Your task to perform on an android device: Do I have any events this weekend? Image 0: 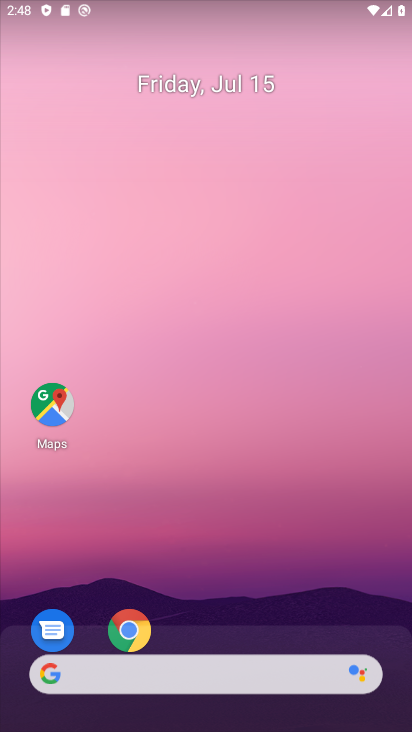
Step 0: drag from (222, 730) to (235, 220)
Your task to perform on an android device: Do I have any events this weekend? Image 1: 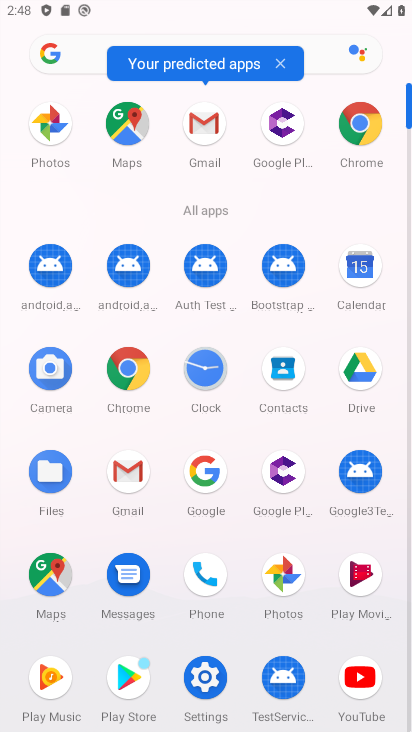
Step 1: click (361, 274)
Your task to perform on an android device: Do I have any events this weekend? Image 2: 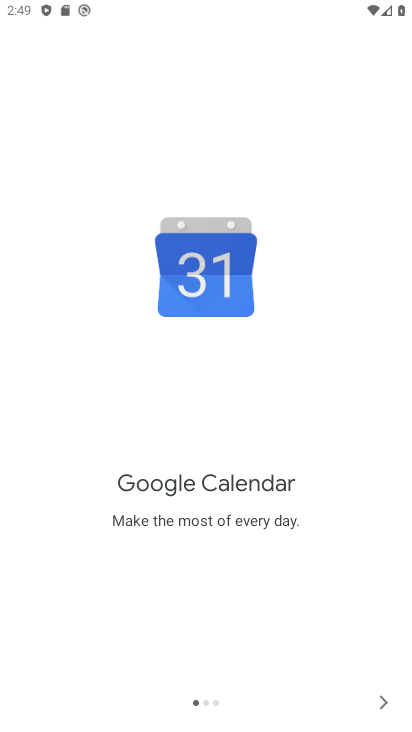
Step 2: click (379, 704)
Your task to perform on an android device: Do I have any events this weekend? Image 3: 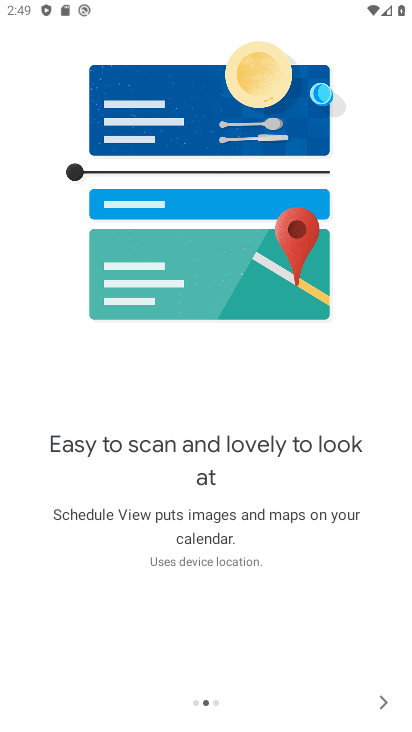
Step 3: click (385, 700)
Your task to perform on an android device: Do I have any events this weekend? Image 4: 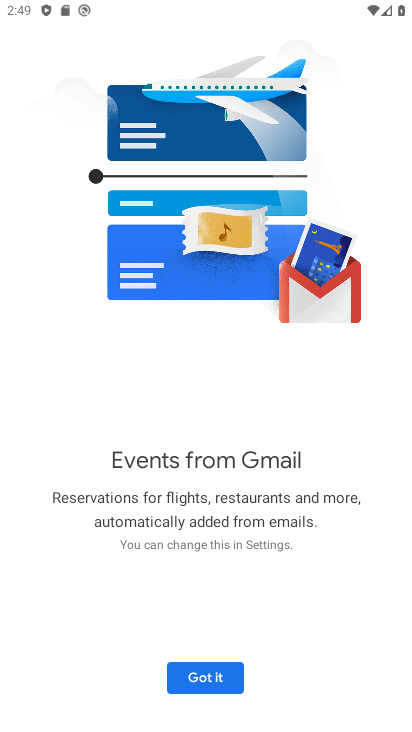
Step 4: click (198, 662)
Your task to perform on an android device: Do I have any events this weekend? Image 5: 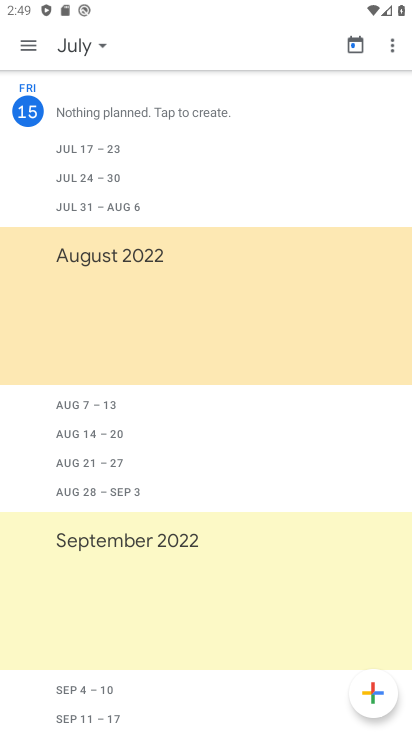
Step 5: task complete